Your task to perform on an android device: Go to Maps Image 0: 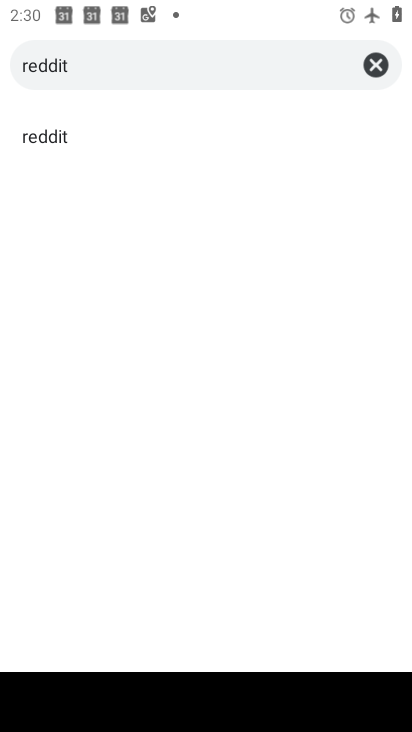
Step 0: press home button
Your task to perform on an android device: Go to Maps Image 1: 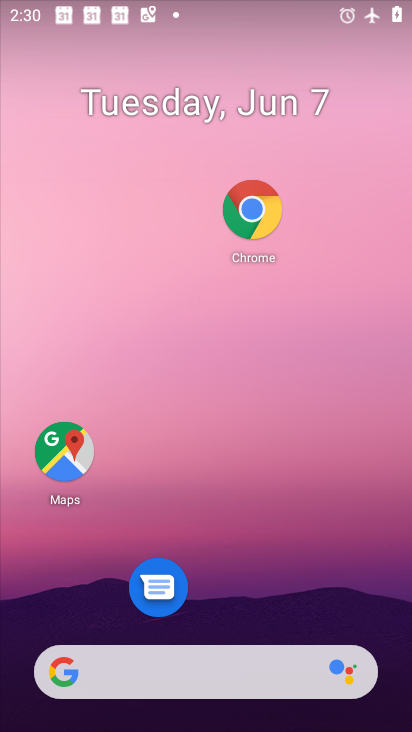
Step 1: drag from (273, 634) to (270, 110)
Your task to perform on an android device: Go to Maps Image 2: 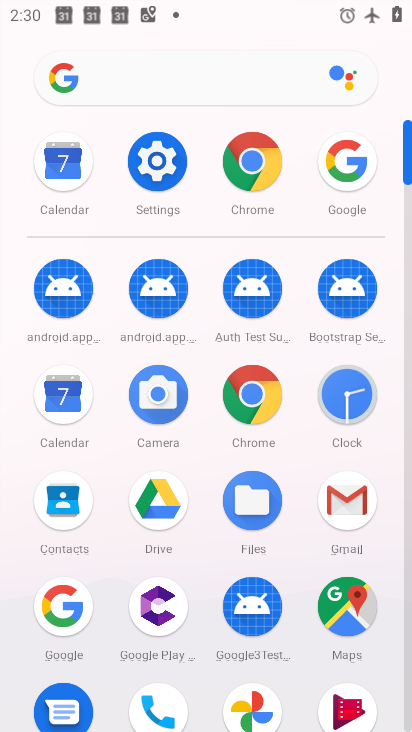
Step 2: click (363, 614)
Your task to perform on an android device: Go to Maps Image 3: 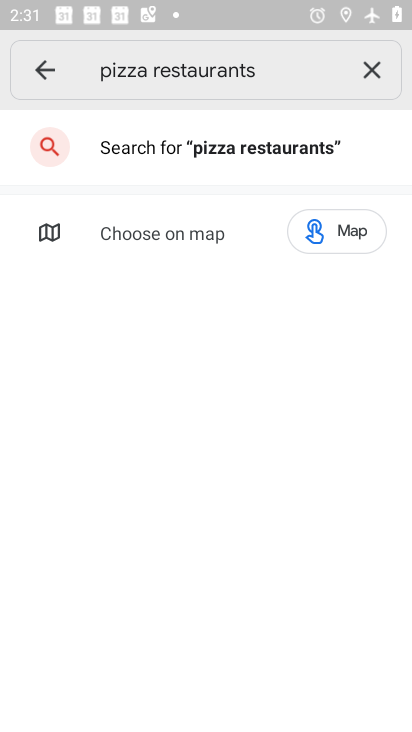
Step 3: press home button
Your task to perform on an android device: Go to Maps Image 4: 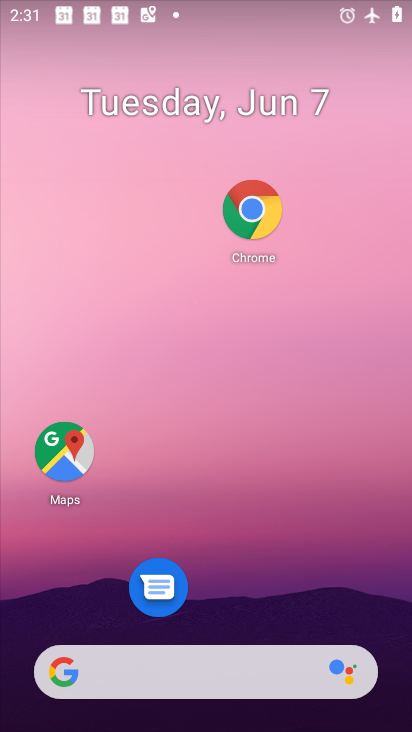
Step 4: click (66, 456)
Your task to perform on an android device: Go to Maps Image 5: 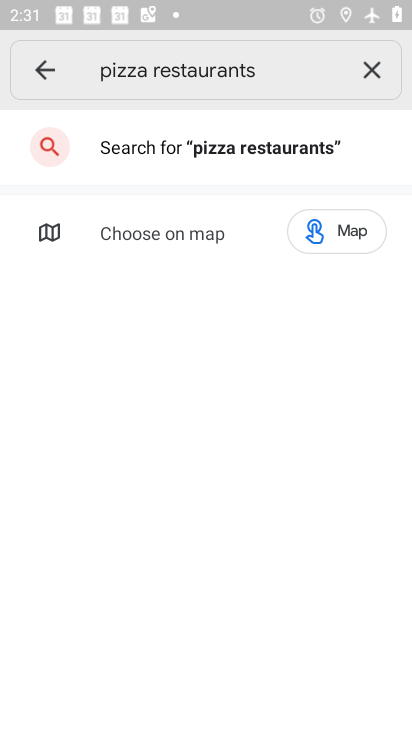
Step 5: click (42, 90)
Your task to perform on an android device: Go to Maps Image 6: 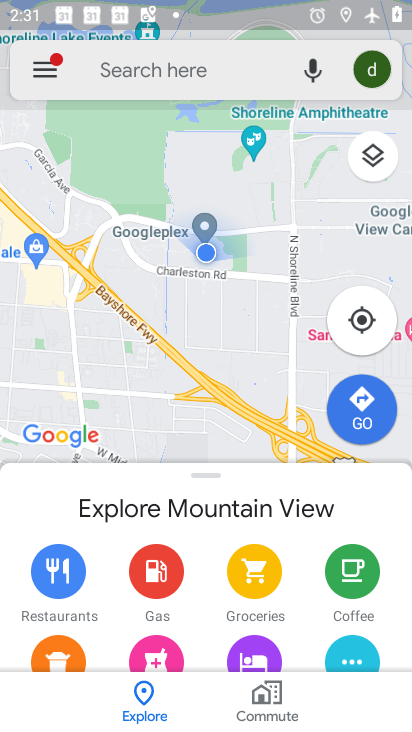
Step 6: task complete